Your task to perform on an android device: Go to Maps Image 0: 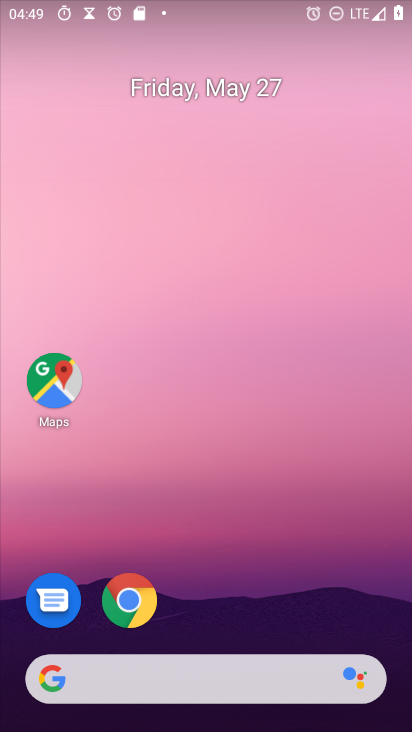
Step 0: drag from (222, 667) to (216, 149)
Your task to perform on an android device: Go to Maps Image 1: 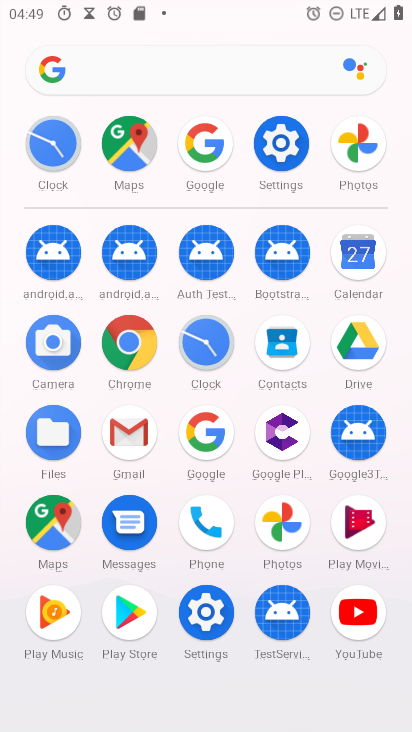
Step 1: click (35, 535)
Your task to perform on an android device: Go to Maps Image 2: 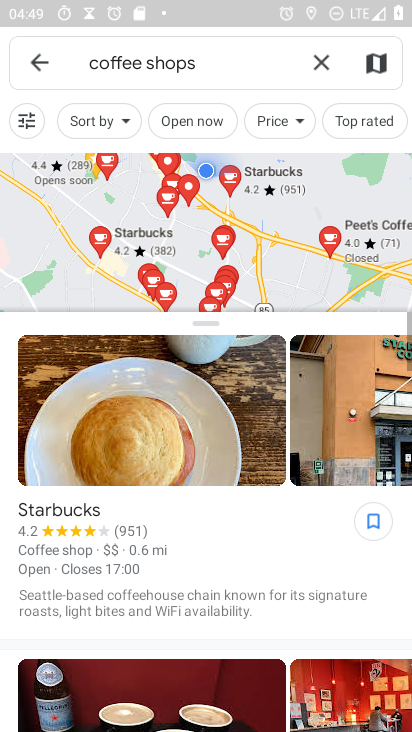
Step 2: task complete